Your task to perform on an android device: Search for Italian restaurants on Maps Image 0: 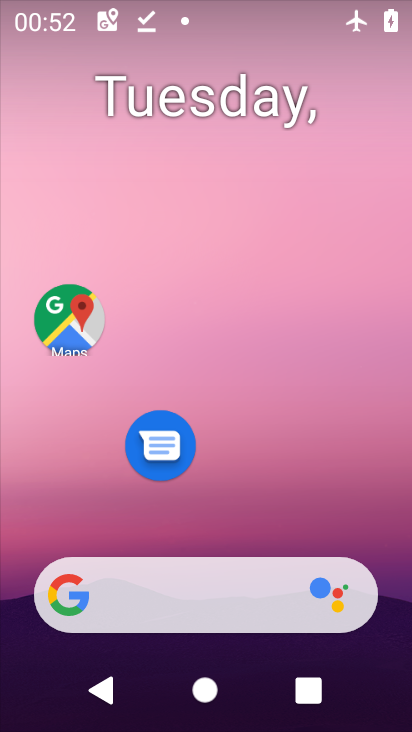
Step 0: click (67, 319)
Your task to perform on an android device: Search for Italian restaurants on Maps Image 1: 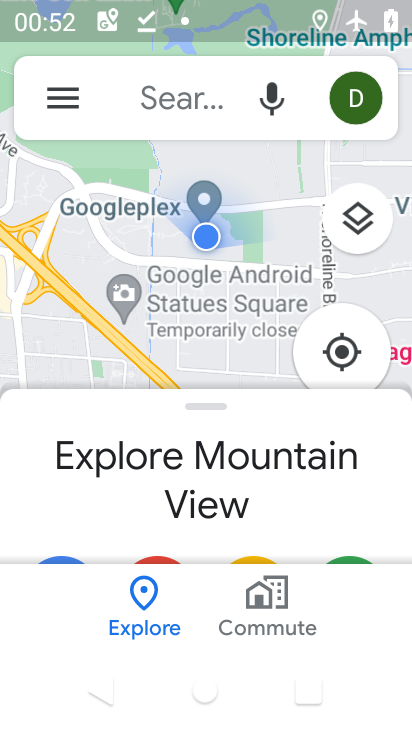
Step 1: click (194, 96)
Your task to perform on an android device: Search for Italian restaurants on Maps Image 2: 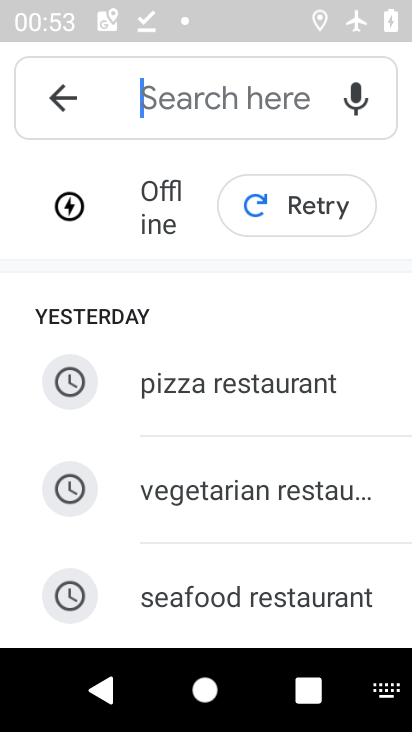
Step 2: type "italian"
Your task to perform on an android device: Search for Italian restaurants on Maps Image 3: 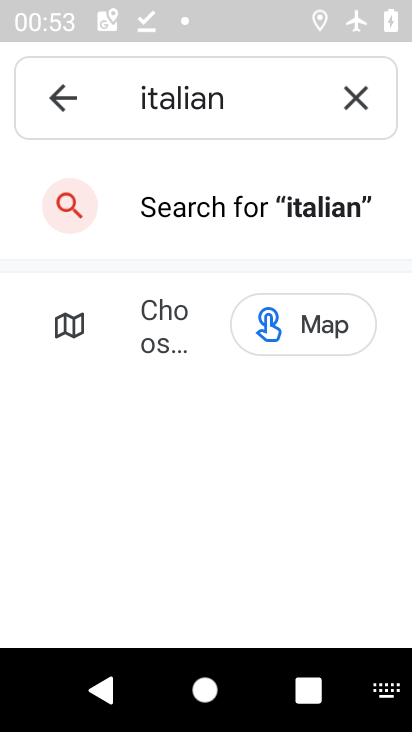
Step 3: click (291, 201)
Your task to perform on an android device: Search for Italian restaurants on Maps Image 4: 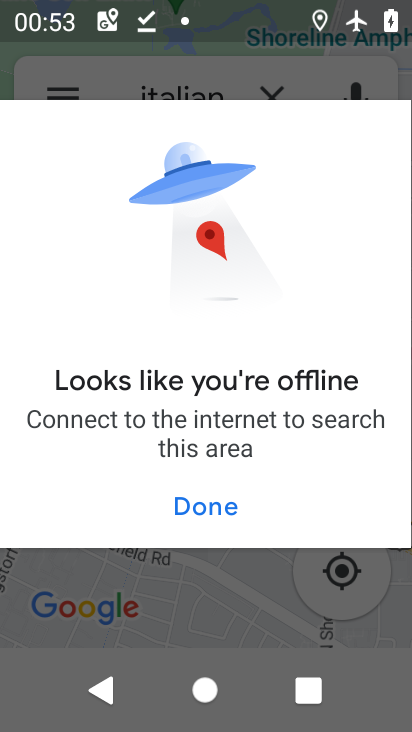
Step 4: task complete